Your task to perform on an android device: Clear the shopping cart on newegg.com. Search for asus zenbook on newegg.com, select the first entry, add it to the cart, then select checkout. Image 0: 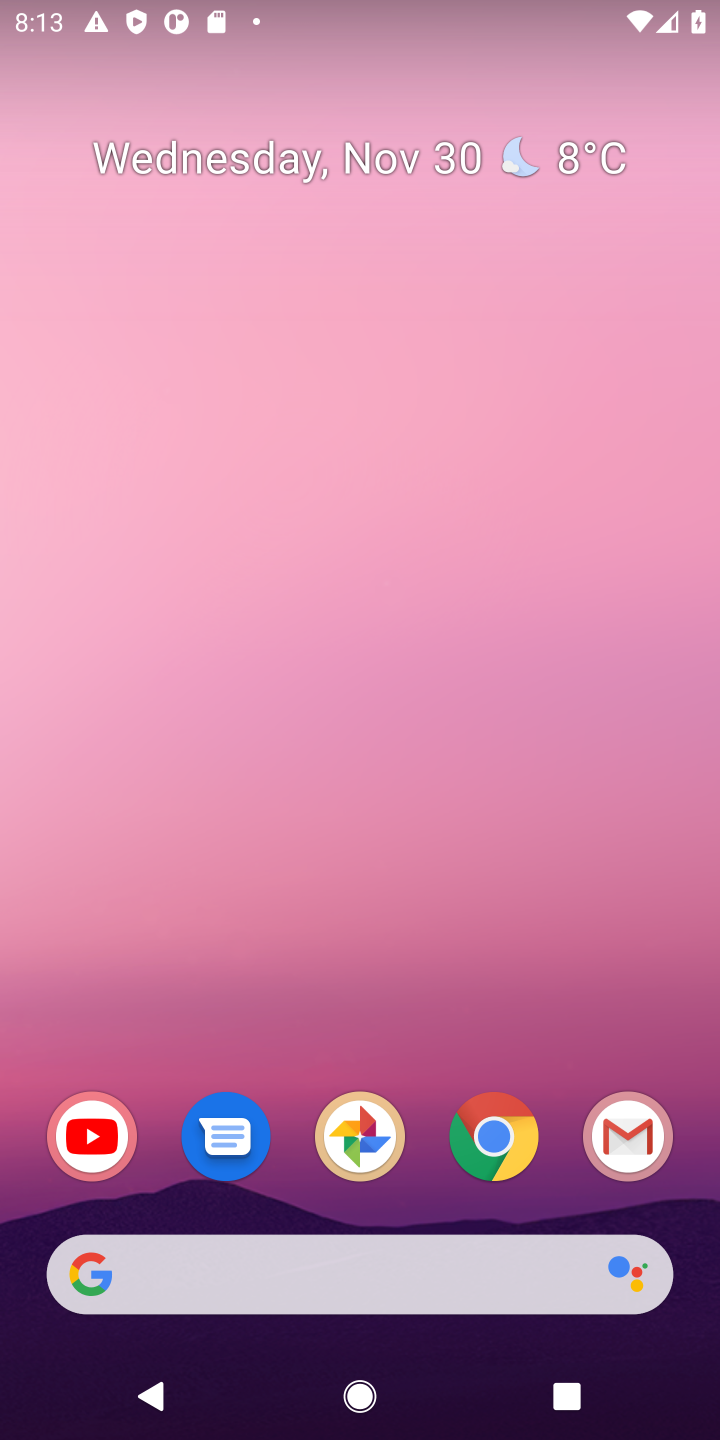
Step 0: click (493, 1140)
Your task to perform on an android device: Clear the shopping cart on newegg.com. Search for asus zenbook on newegg.com, select the first entry, add it to the cart, then select checkout. Image 1: 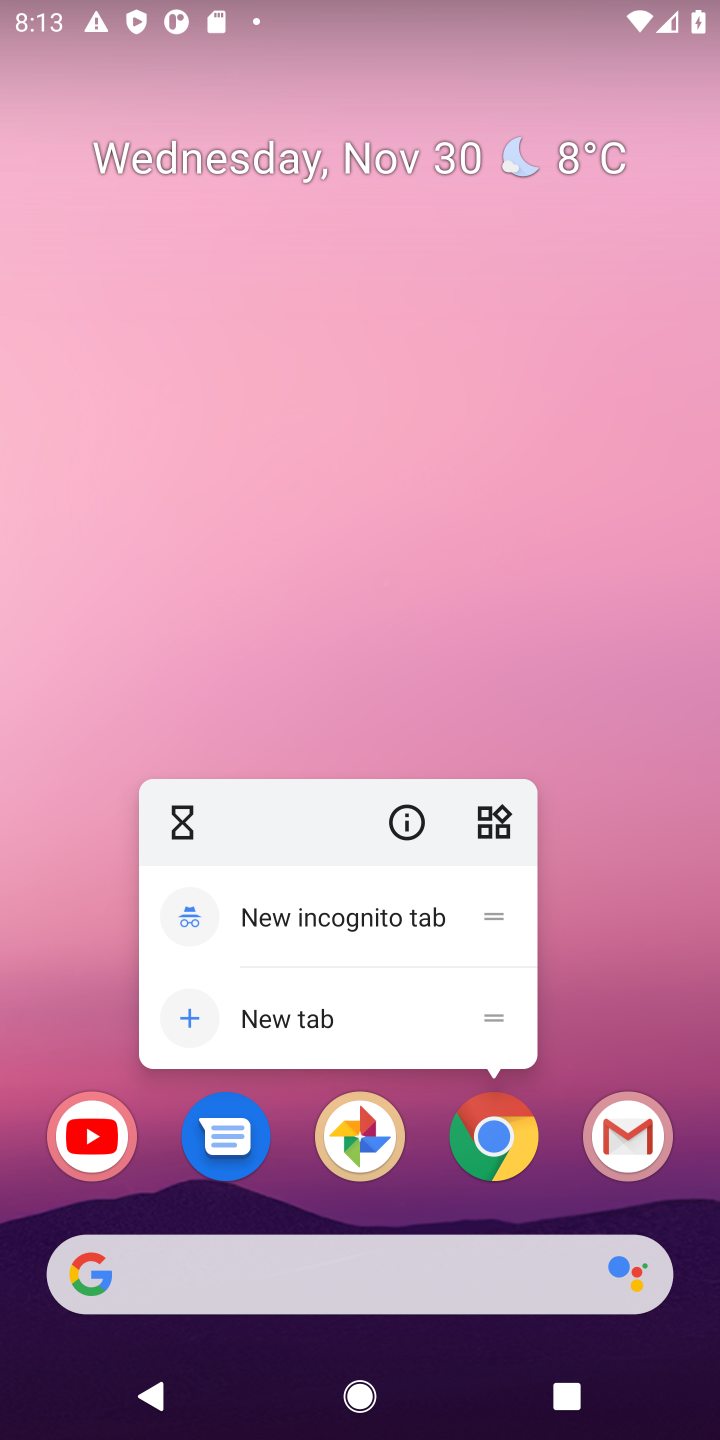
Step 1: click (493, 1140)
Your task to perform on an android device: Clear the shopping cart on newegg.com. Search for asus zenbook on newegg.com, select the first entry, add it to the cart, then select checkout. Image 2: 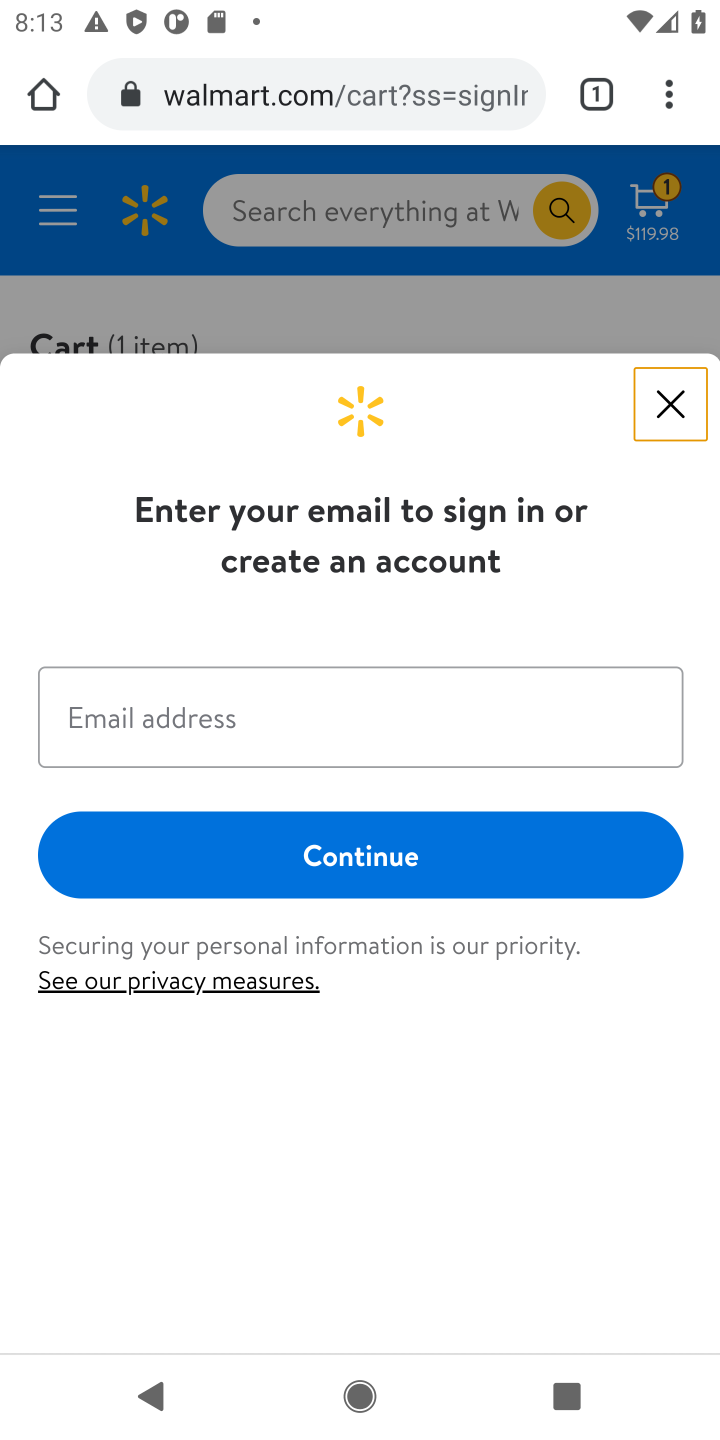
Step 2: click (312, 96)
Your task to perform on an android device: Clear the shopping cart on newegg.com. Search for asus zenbook on newegg.com, select the first entry, add it to the cart, then select checkout. Image 3: 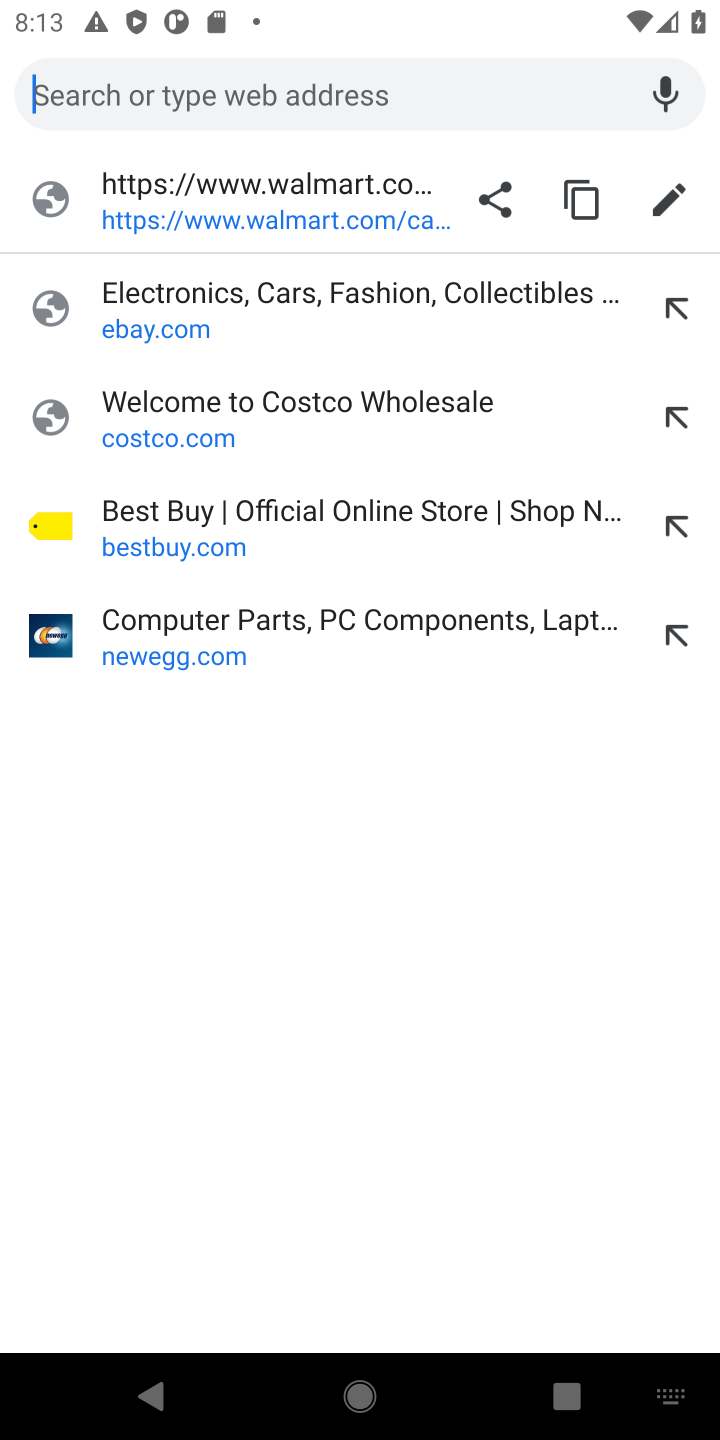
Step 3: click (135, 656)
Your task to perform on an android device: Clear the shopping cart on newegg.com. Search for asus zenbook on newegg.com, select the first entry, add it to the cart, then select checkout. Image 4: 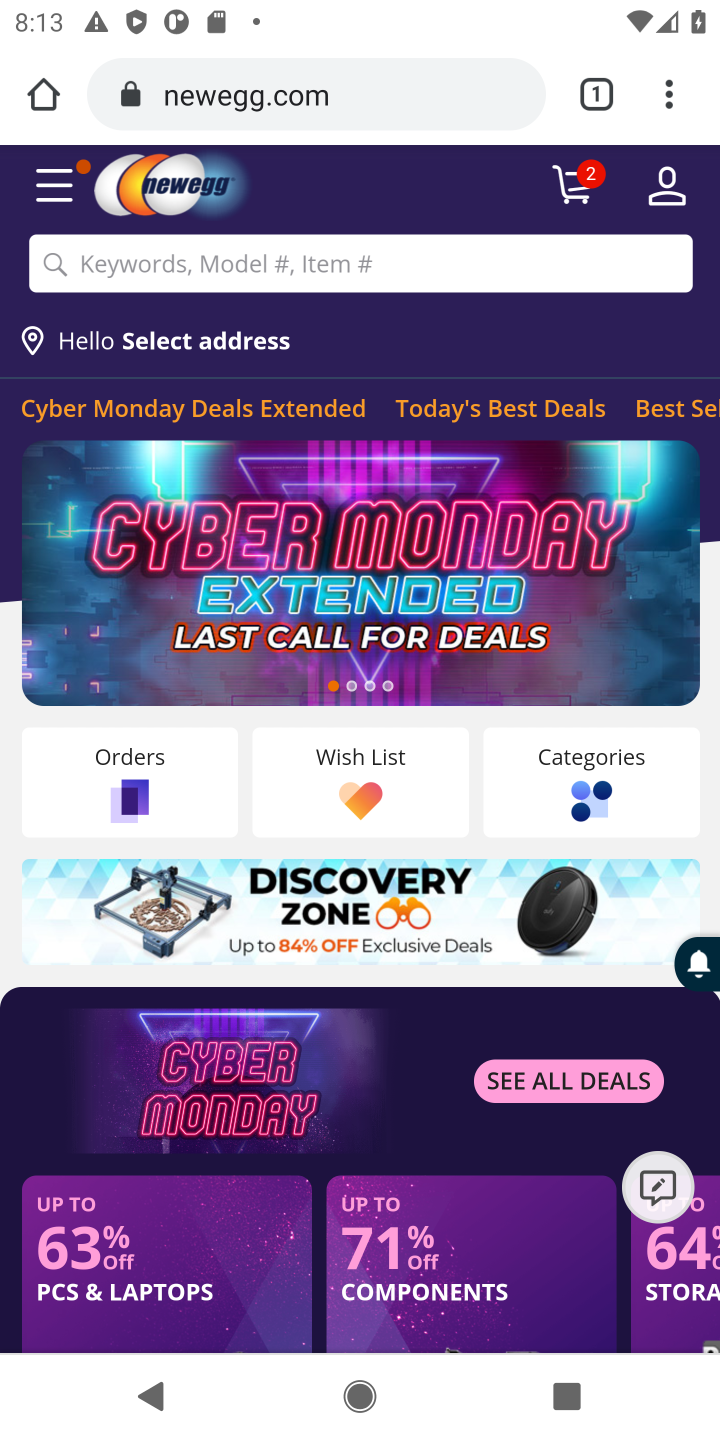
Step 4: click (568, 197)
Your task to perform on an android device: Clear the shopping cart on newegg.com. Search for asus zenbook on newegg.com, select the first entry, add it to the cart, then select checkout. Image 5: 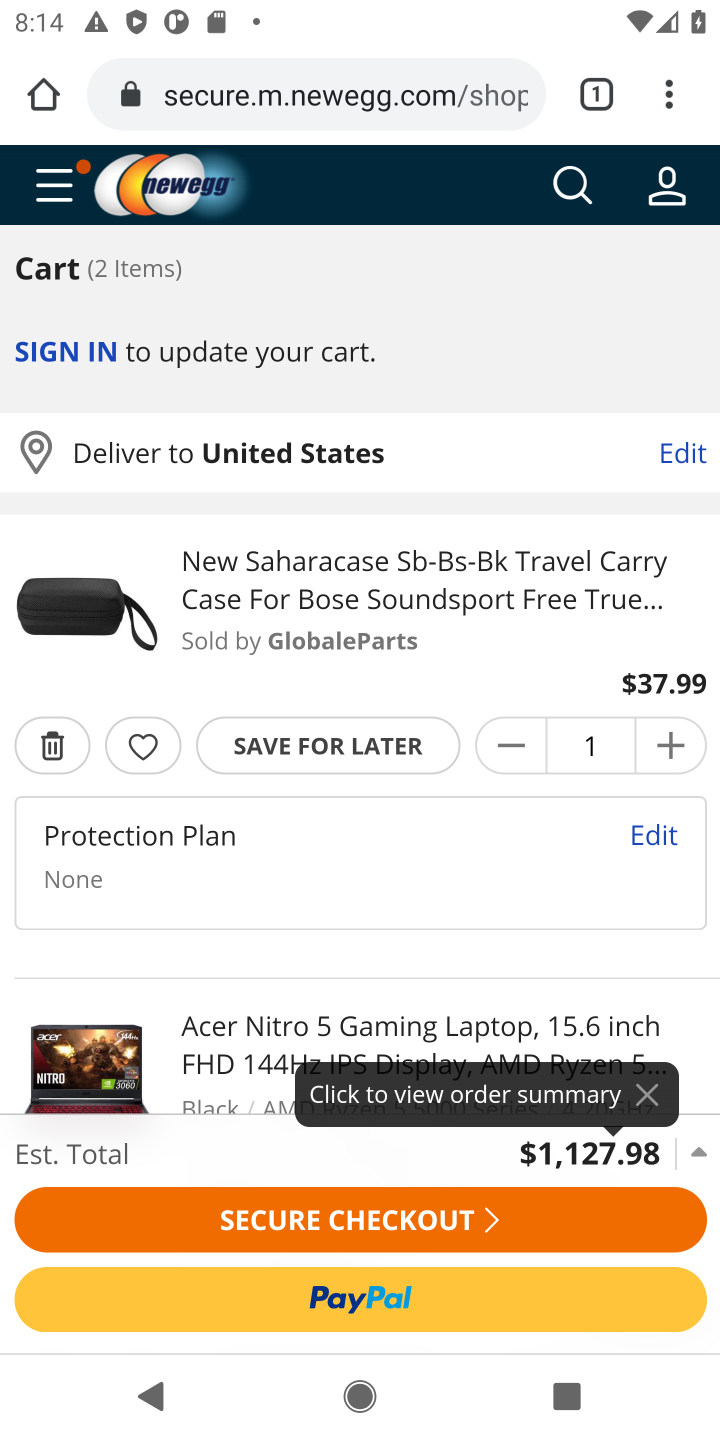
Step 5: click (45, 740)
Your task to perform on an android device: Clear the shopping cart on newegg.com. Search for asus zenbook on newegg.com, select the first entry, add it to the cart, then select checkout. Image 6: 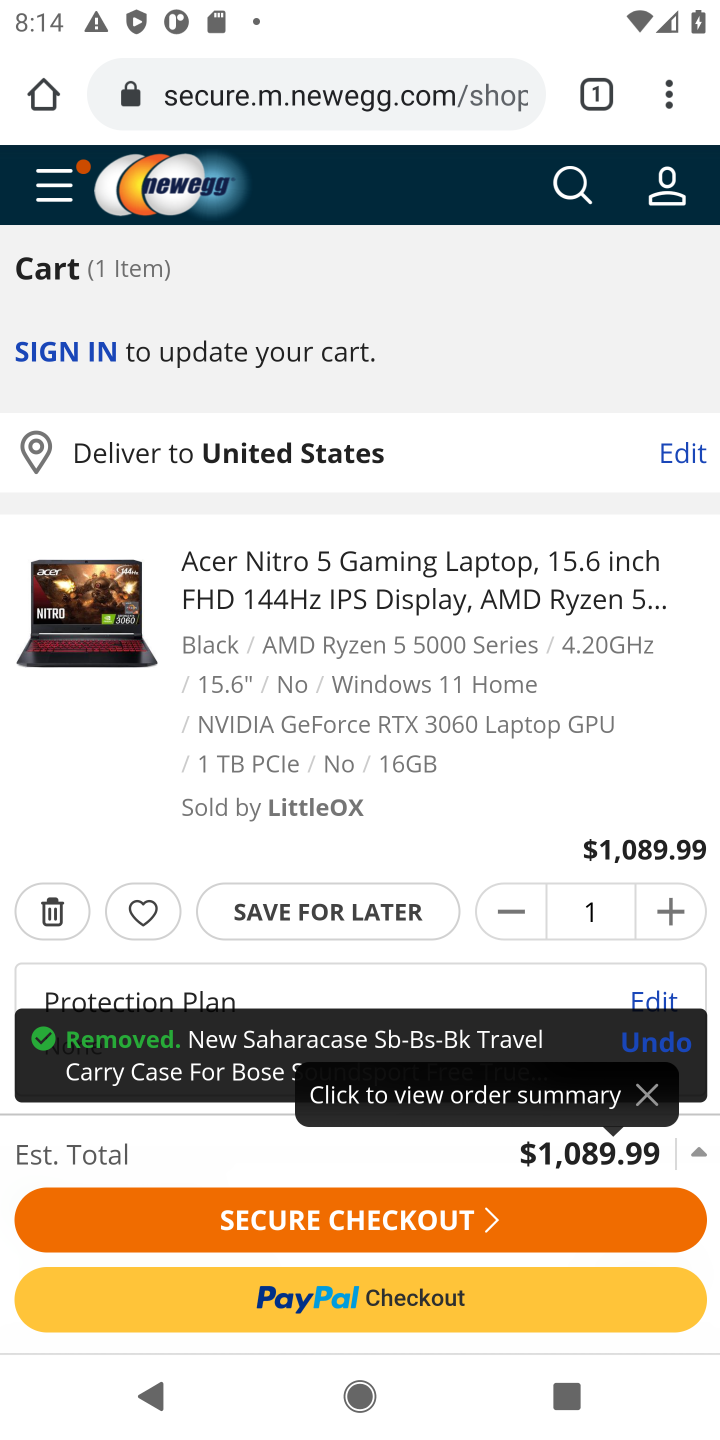
Step 6: click (52, 901)
Your task to perform on an android device: Clear the shopping cart on newegg.com. Search for asus zenbook on newegg.com, select the first entry, add it to the cart, then select checkout. Image 7: 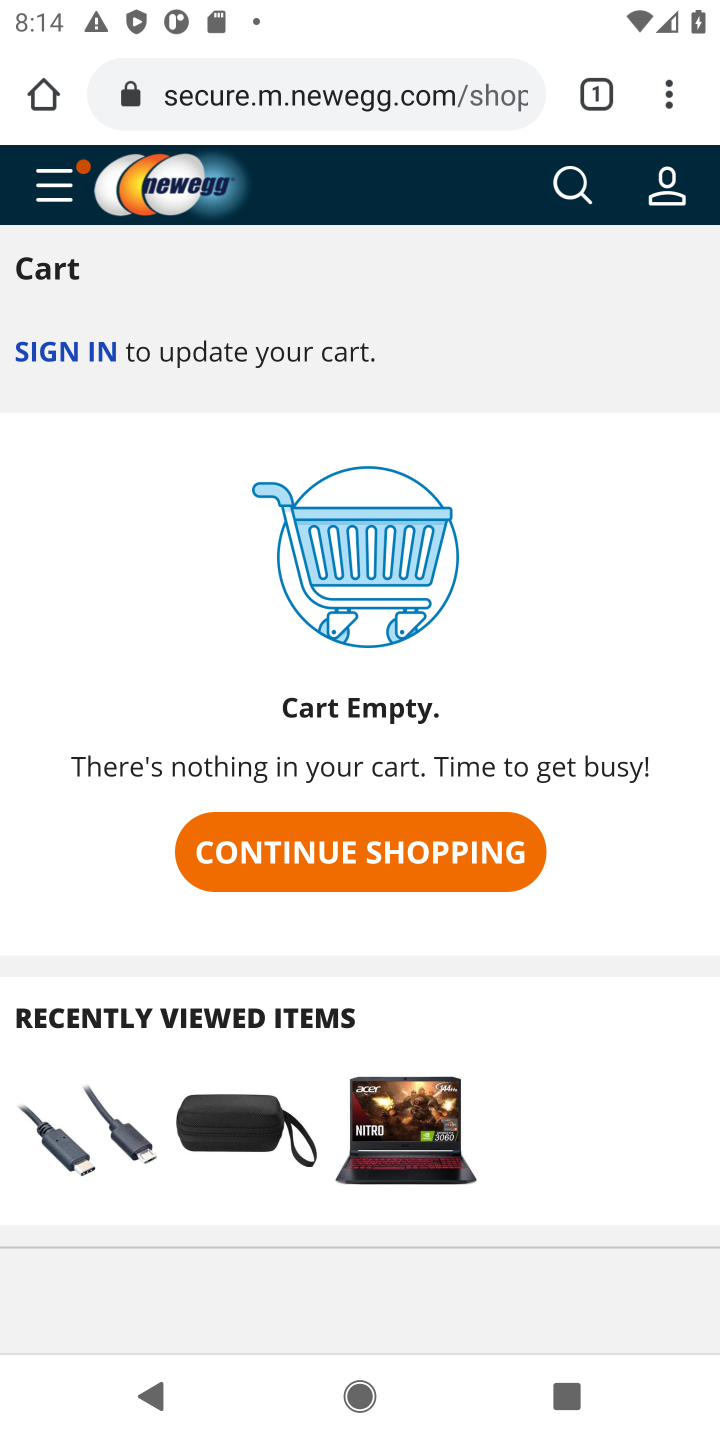
Step 7: click (560, 197)
Your task to perform on an android device: Clear the shopping cart on newegg.com. Search for asus zenbook on newegg.com, select the first entry, add it to the cart, then select checkout. Image 8: 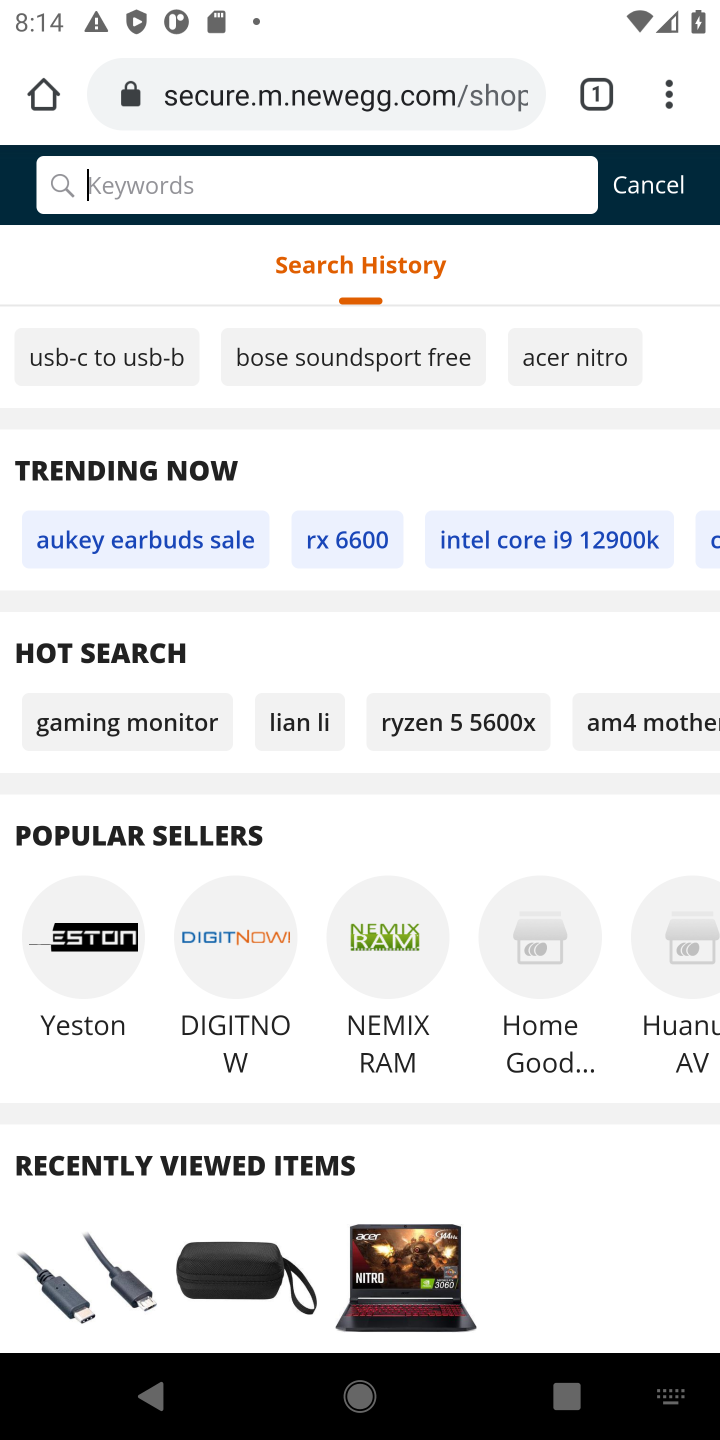
Step 8: type "asus zenbook"
Your task to perform on an android device: Clear the shopping cart on newegg.com. Search for asus zenbook on newegg.com, select the first entry, add it to the cart, then select checkout. Image 9: 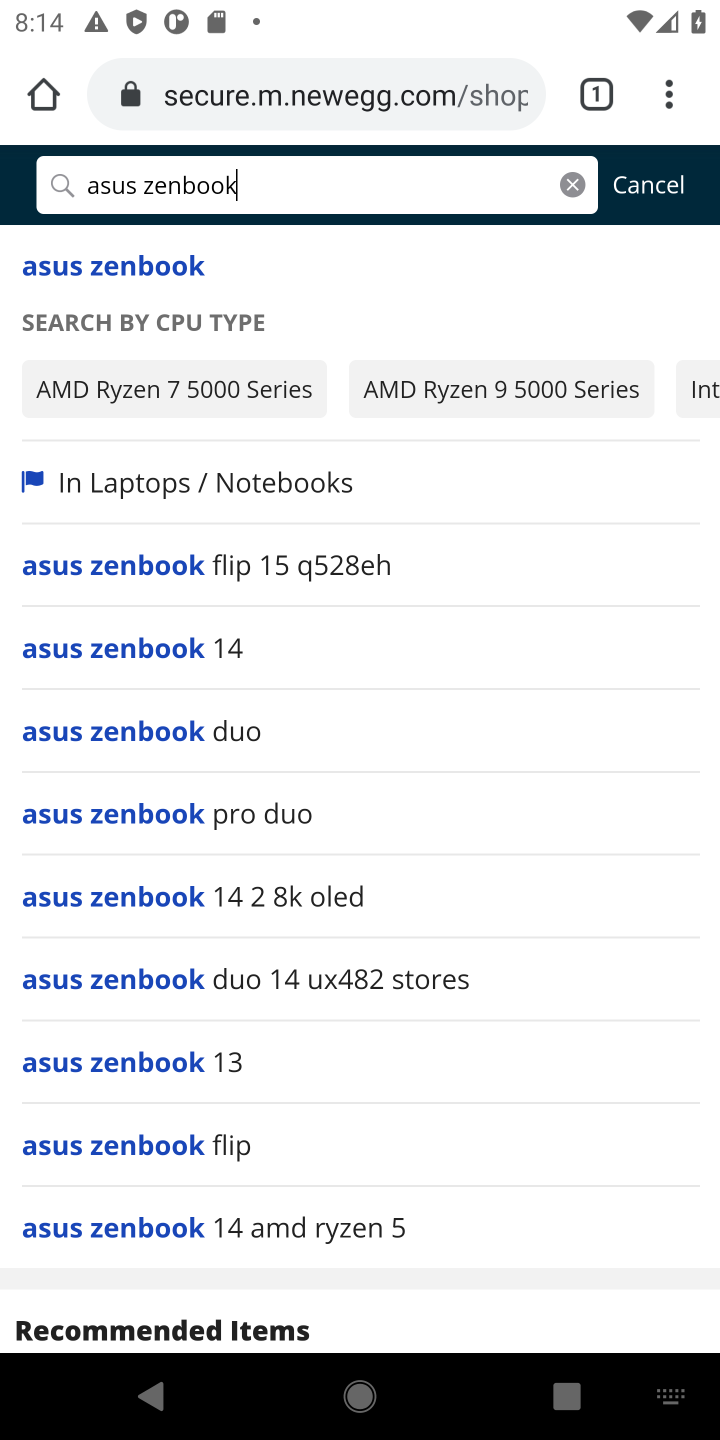
Step 9: click (131, 275)
Your task to perform on an android device: Clear the shopping cart on newegg.com. Search for asus zenbook on newegg.com, select the first entry, add it to the cart, then select checkout. Image 10: 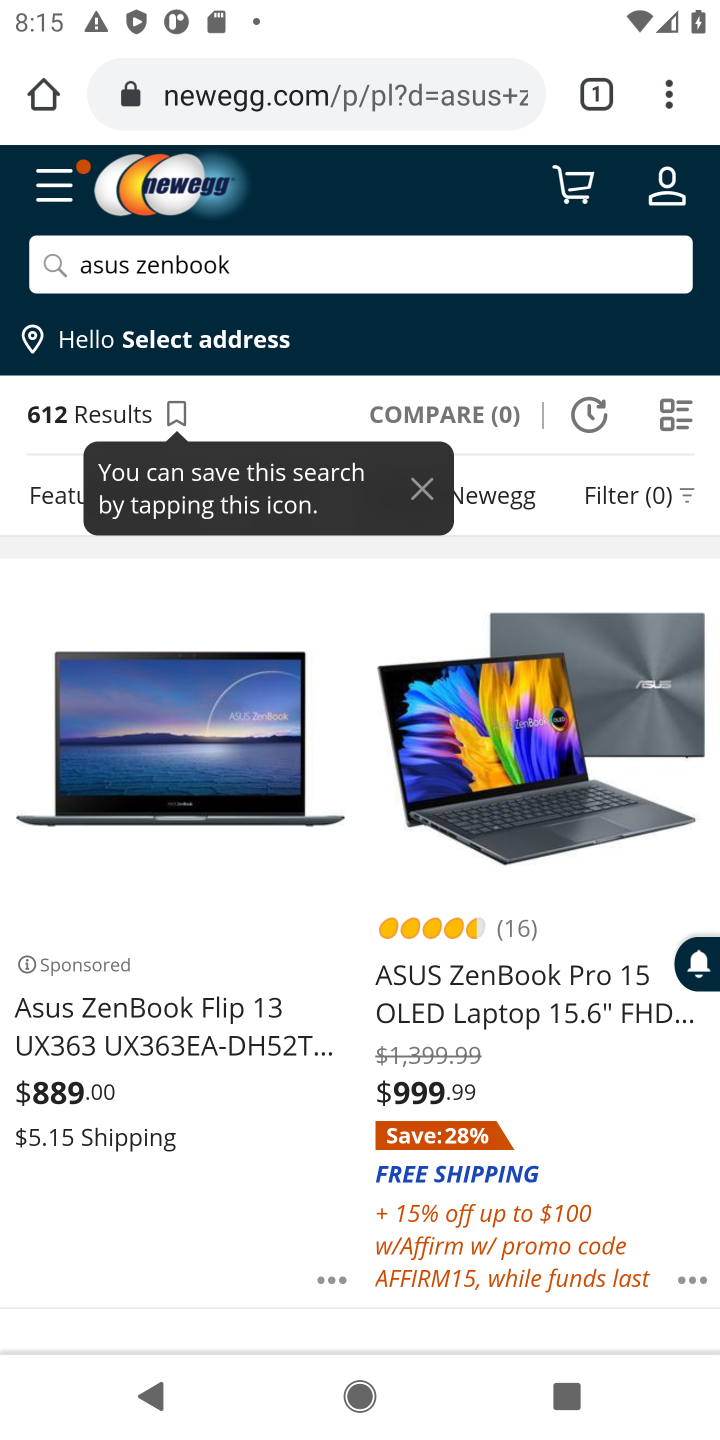
Step 10: click (113, 1010)
Your task to perform on an android device: Clear the shopping cart on newegg.com. Search for asus zenbook on newegg.com, select the first entry, add it to the cart, then select checkout. Image 11: 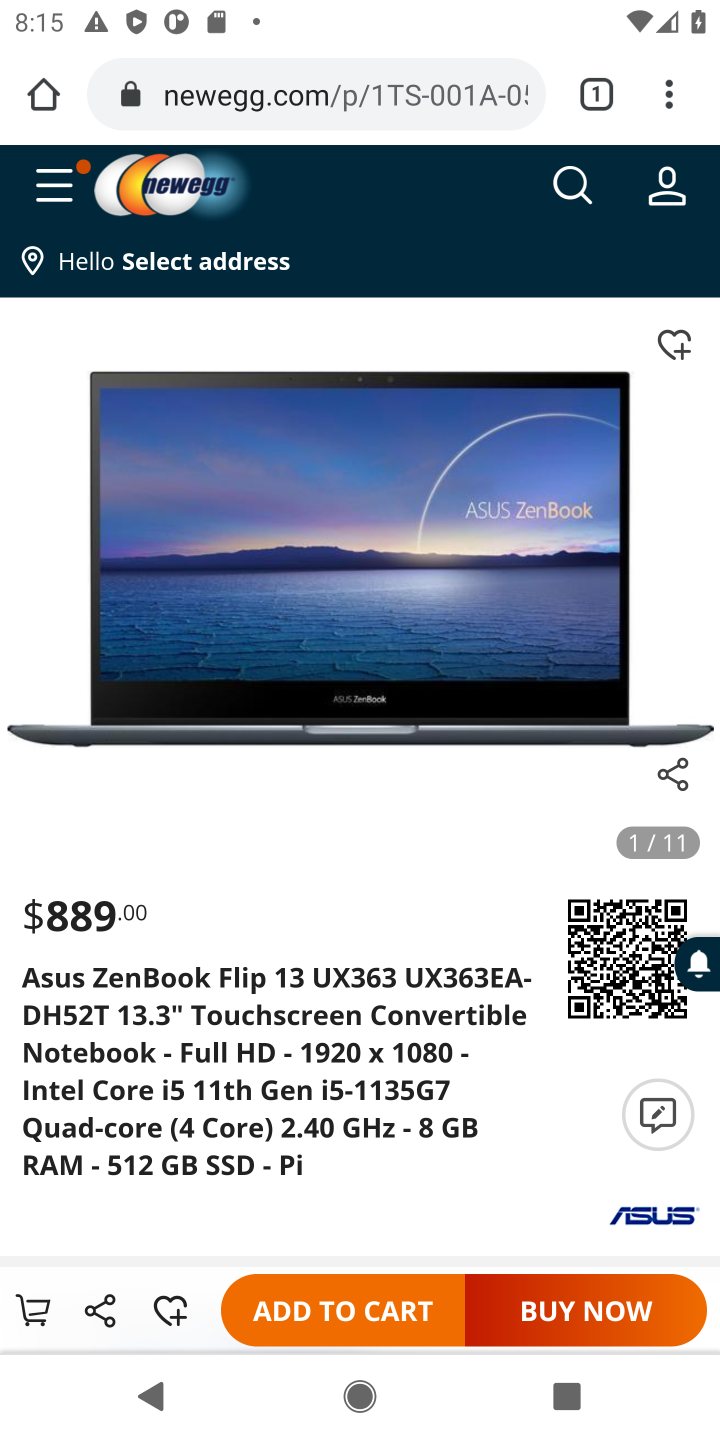
Step 11: click (322, 1310)
Your task to perform on an android device: Clear the shopping cart on newegg.com. Search for asus zenbook on newegg.com, select the first entry, add it to the cart, then select checkout. Image 12: 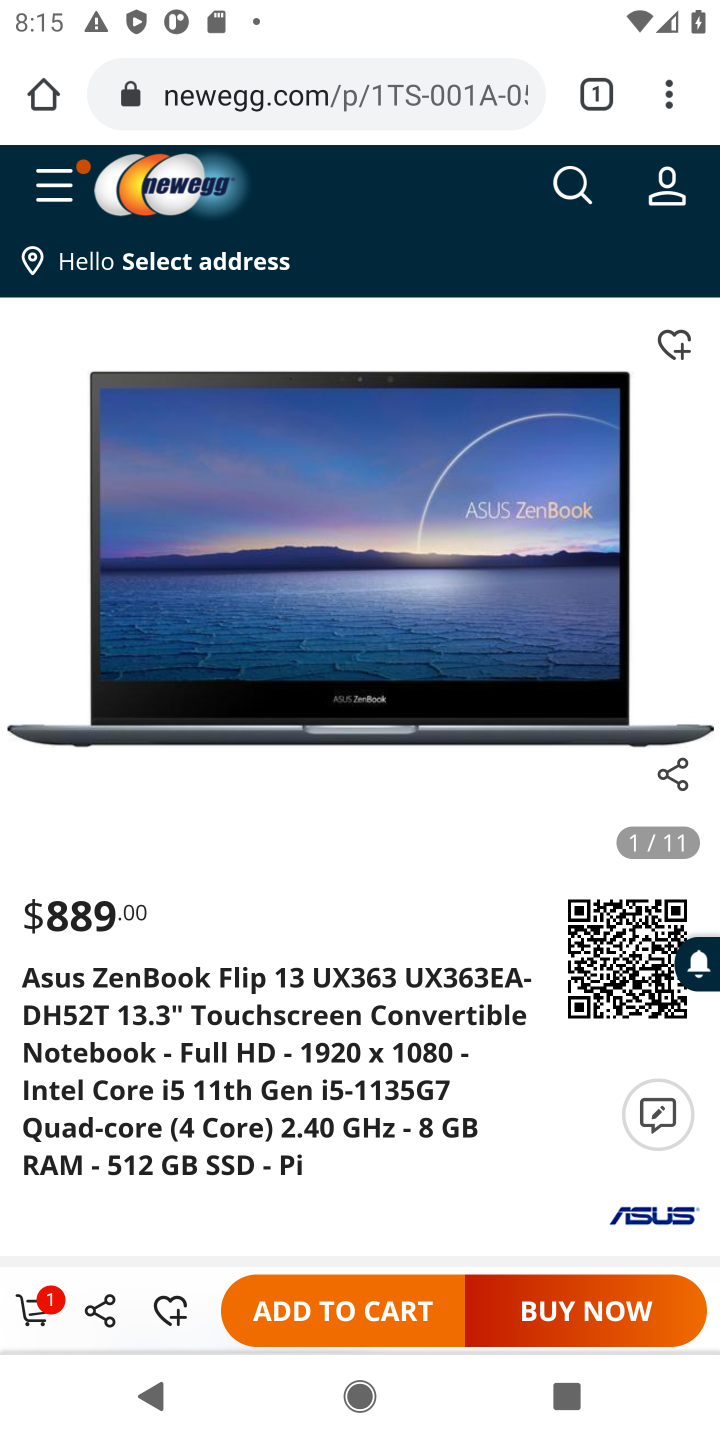
Step 12: click (36, 1319)
Your task to perform on an android device: Clear the shopping cart on newegg.com. Search for asus zenbook on newegg.com, select the first entry, add it to the cart, then select checkout. Image 13: 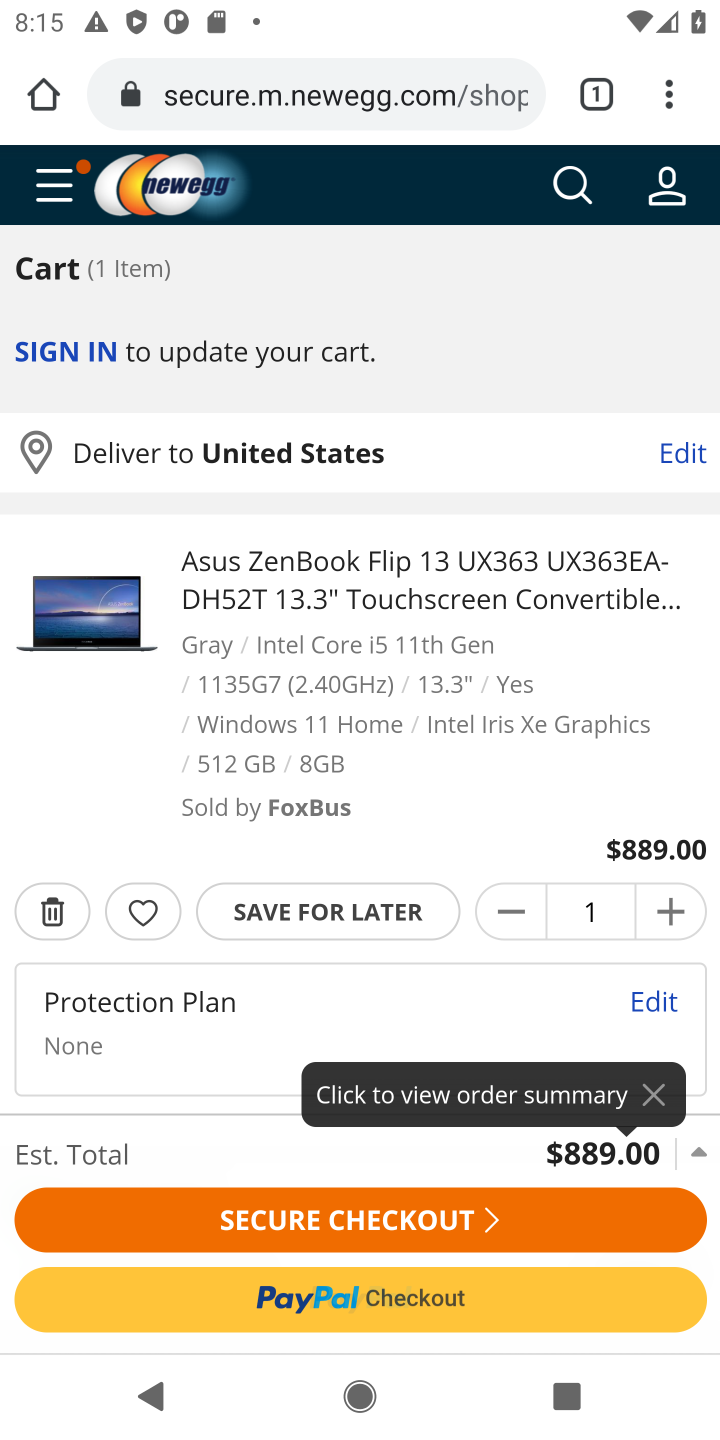
Step 13: click (281, 1225)
Your task to perform on an android device: Clear the shopping cart on newegg.com. Search for asus zenbook on newegg.com, select the first entry, add it to the cart, then select checkout. Image 14: 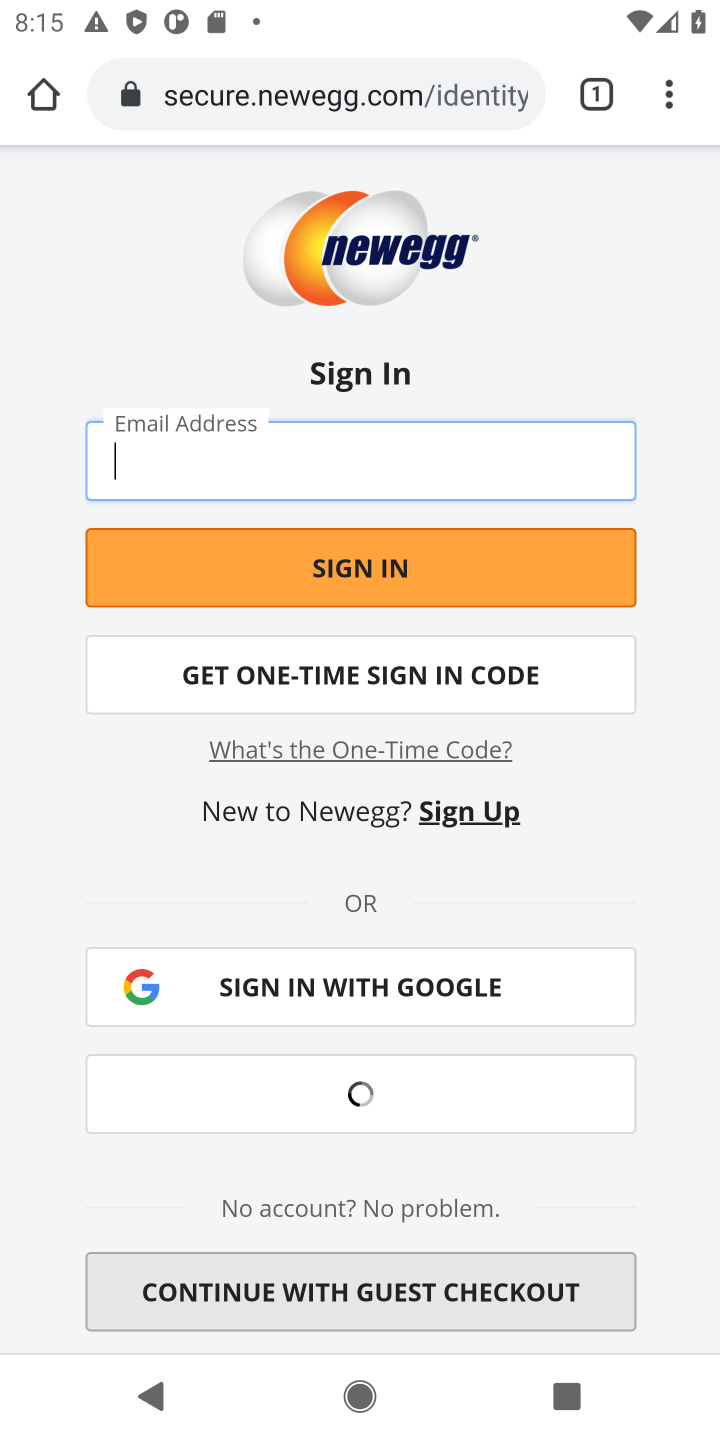
Step 14: task complete